Your task to perform on an android device: turn off picture-in-picture Image 0: 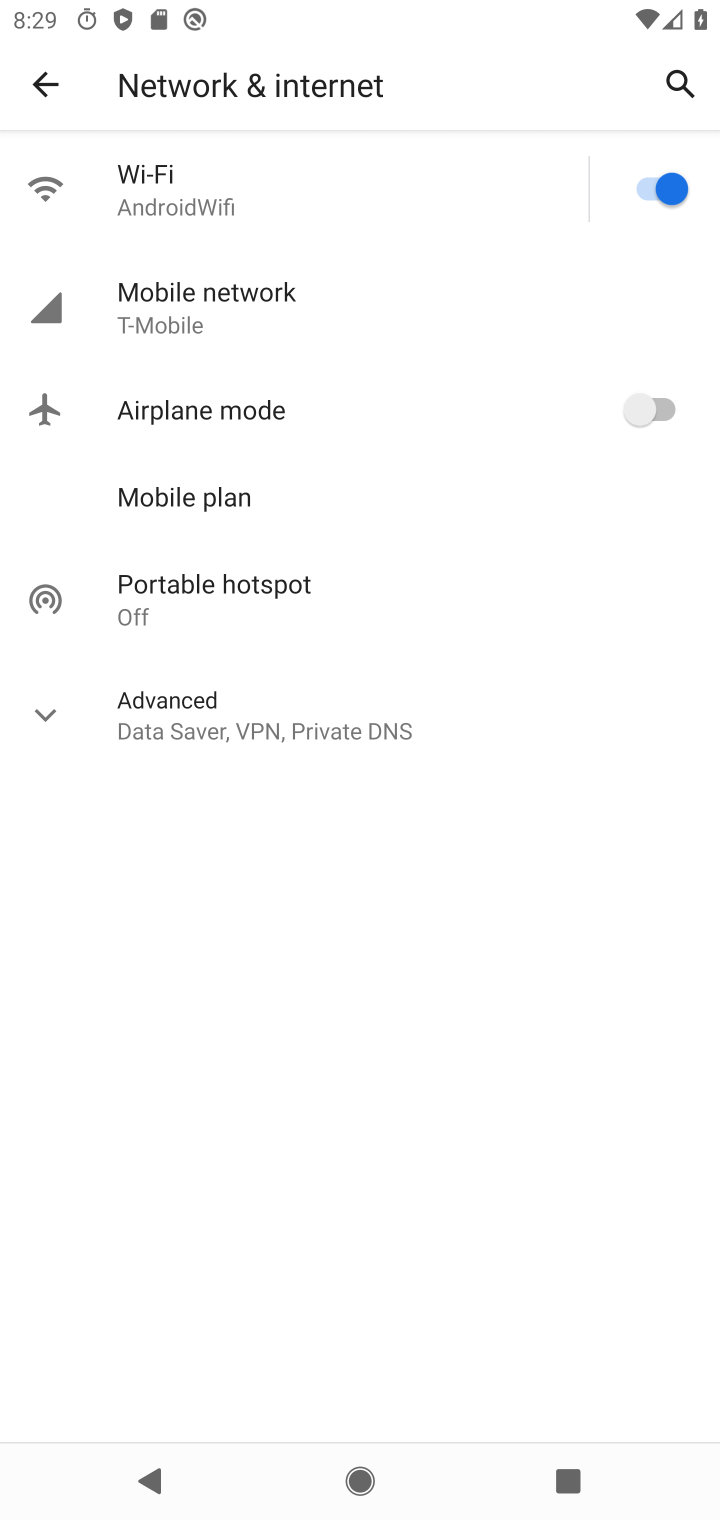
Step 0: press home button
Your task to perform on an android device: turn off picture-in-picture Image 1: 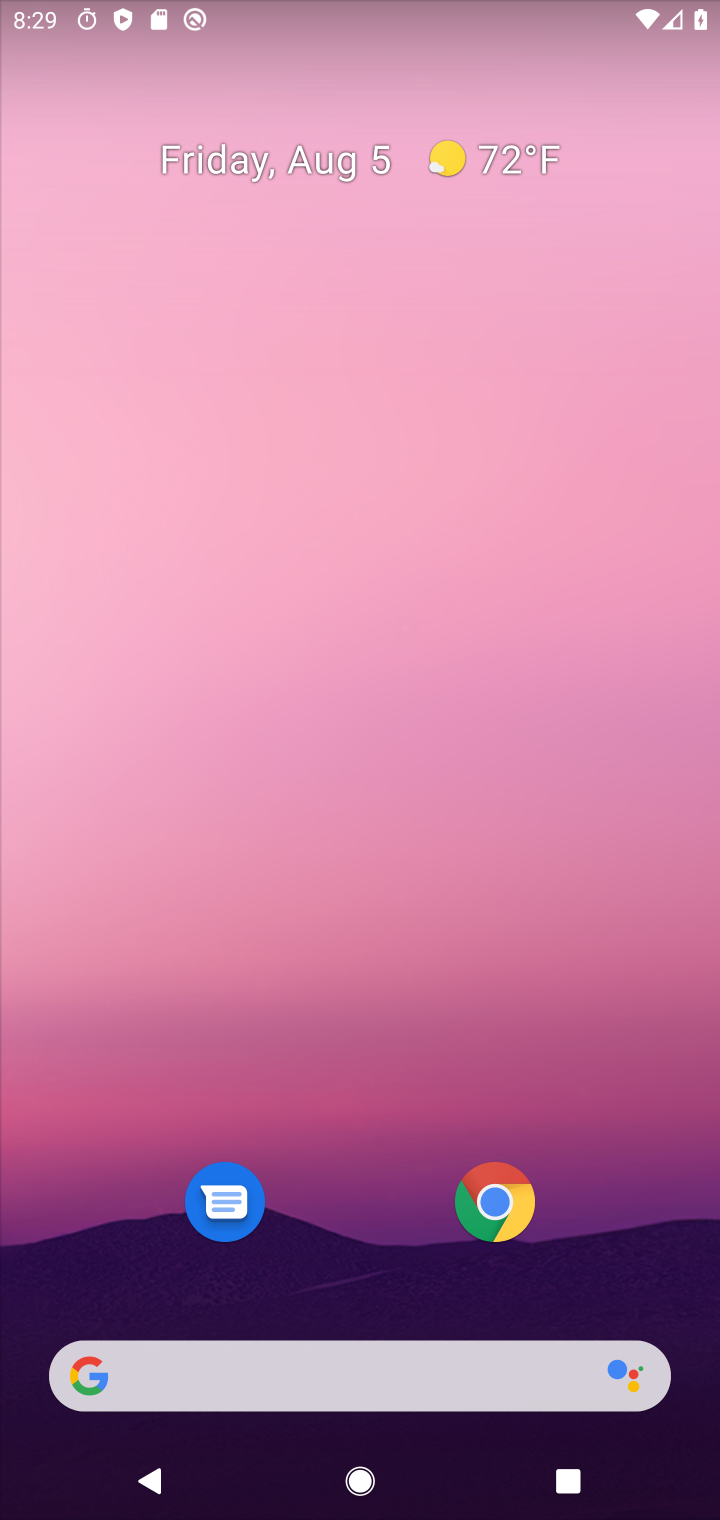
Step 1: click (509, 1206)
Your task to perform on an android device: turn off picture-in-picture Image 2: 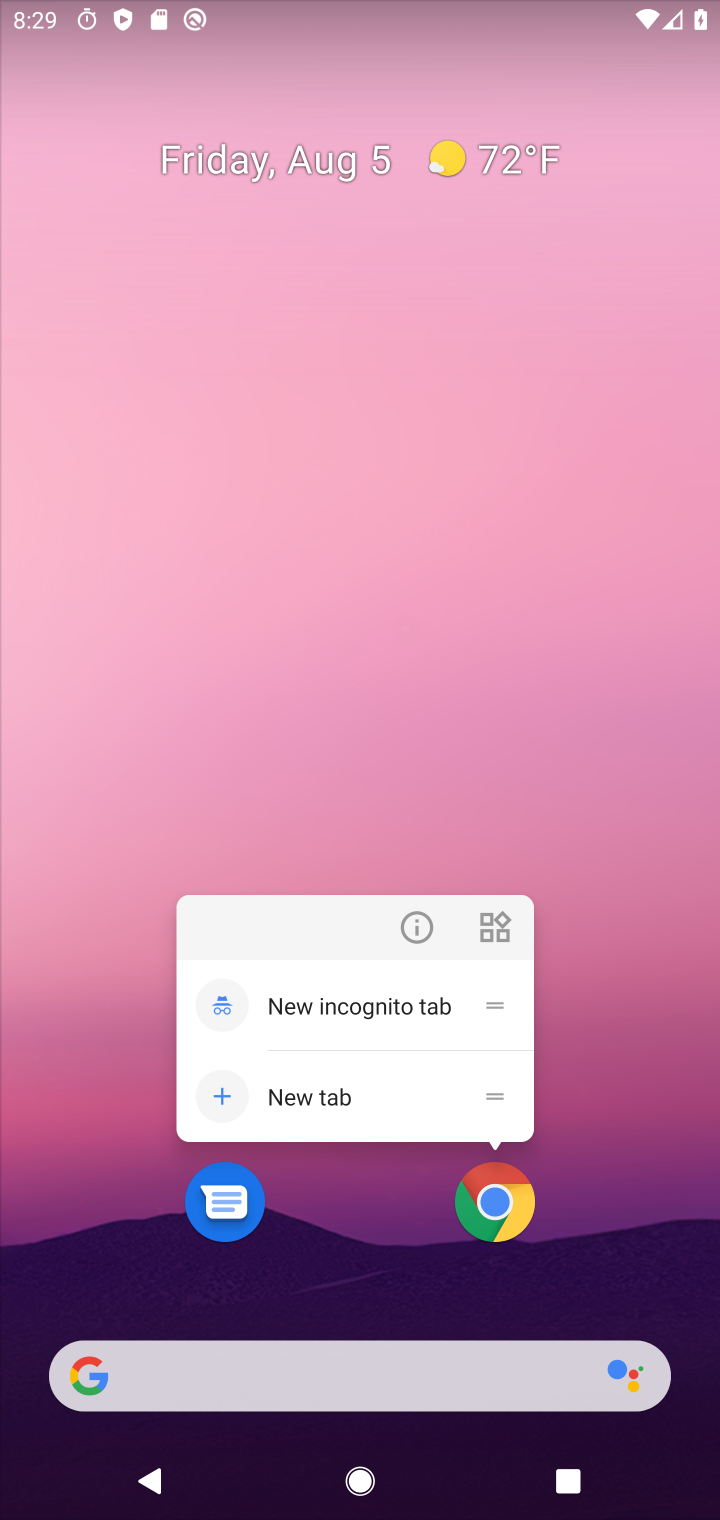
Step 2: click (413, 920)
Your task to perform on an android device: turn off picture-in-picture Image 3: 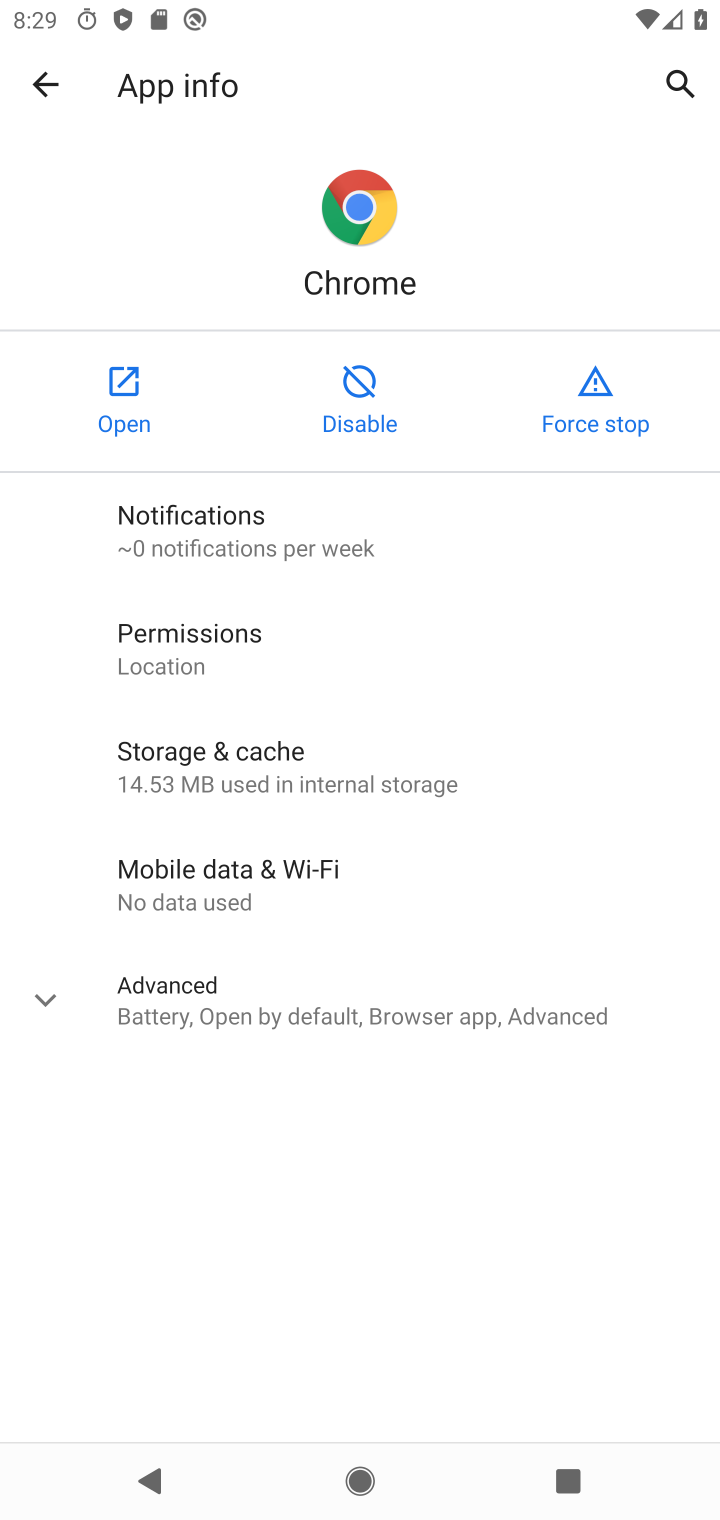
Step 3: click (249, 1009)
Your task to perform on an android device: turn off picture-in-picture Image 4: 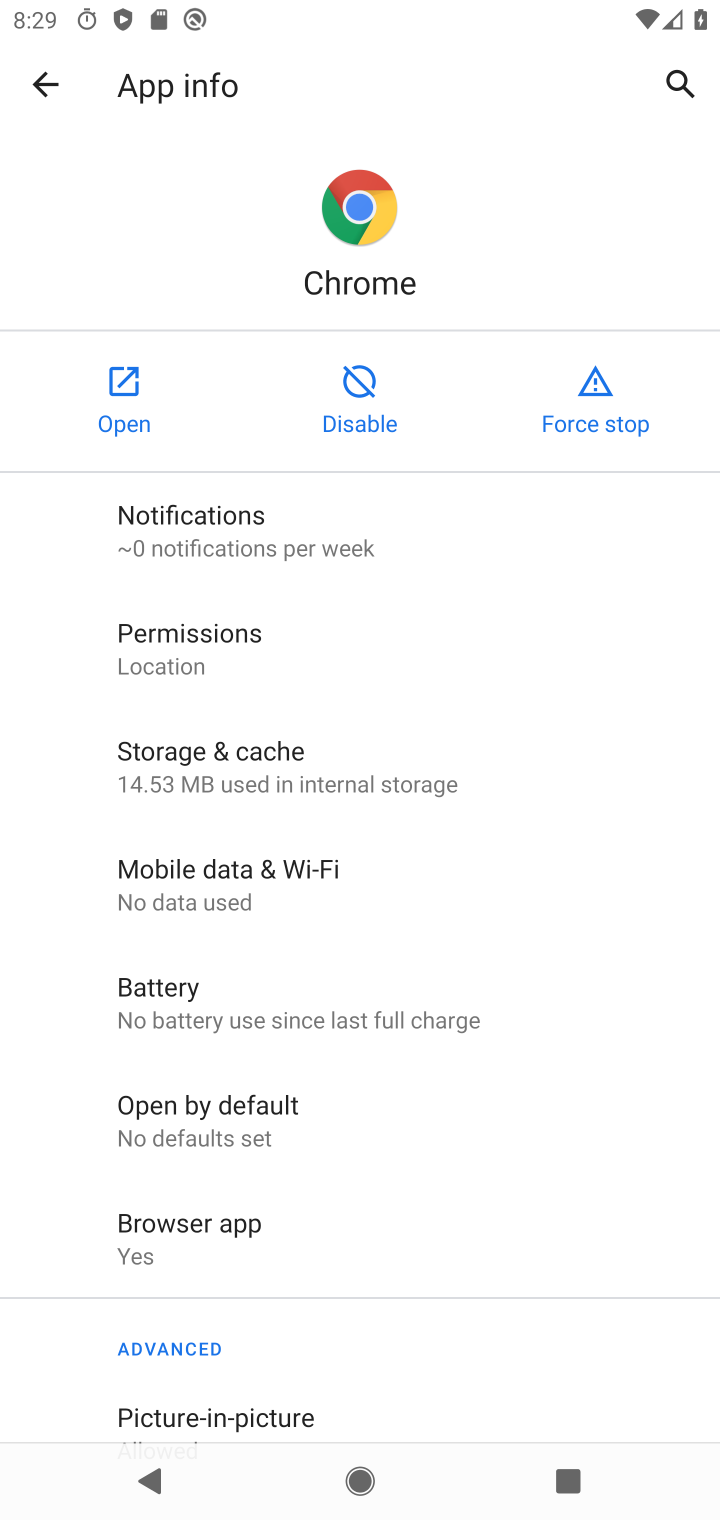
Step 4: drag from (210, 1350) to (184, 456)
Your task to perform on an android device: turn off picture-in-picture Image 5: 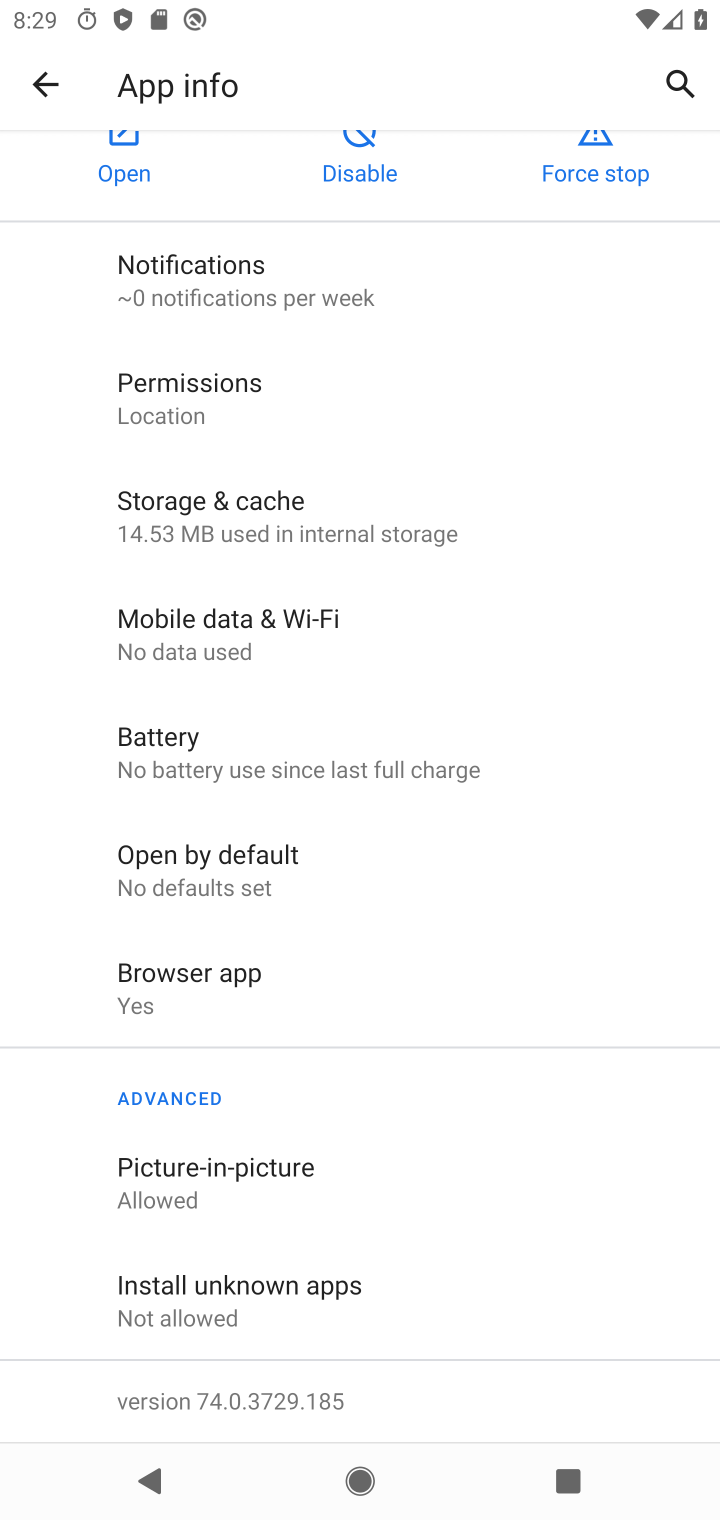
Step 5: click (241, 1166)
Your task to perform on an android device: turn off picture-in-picture Image 6: 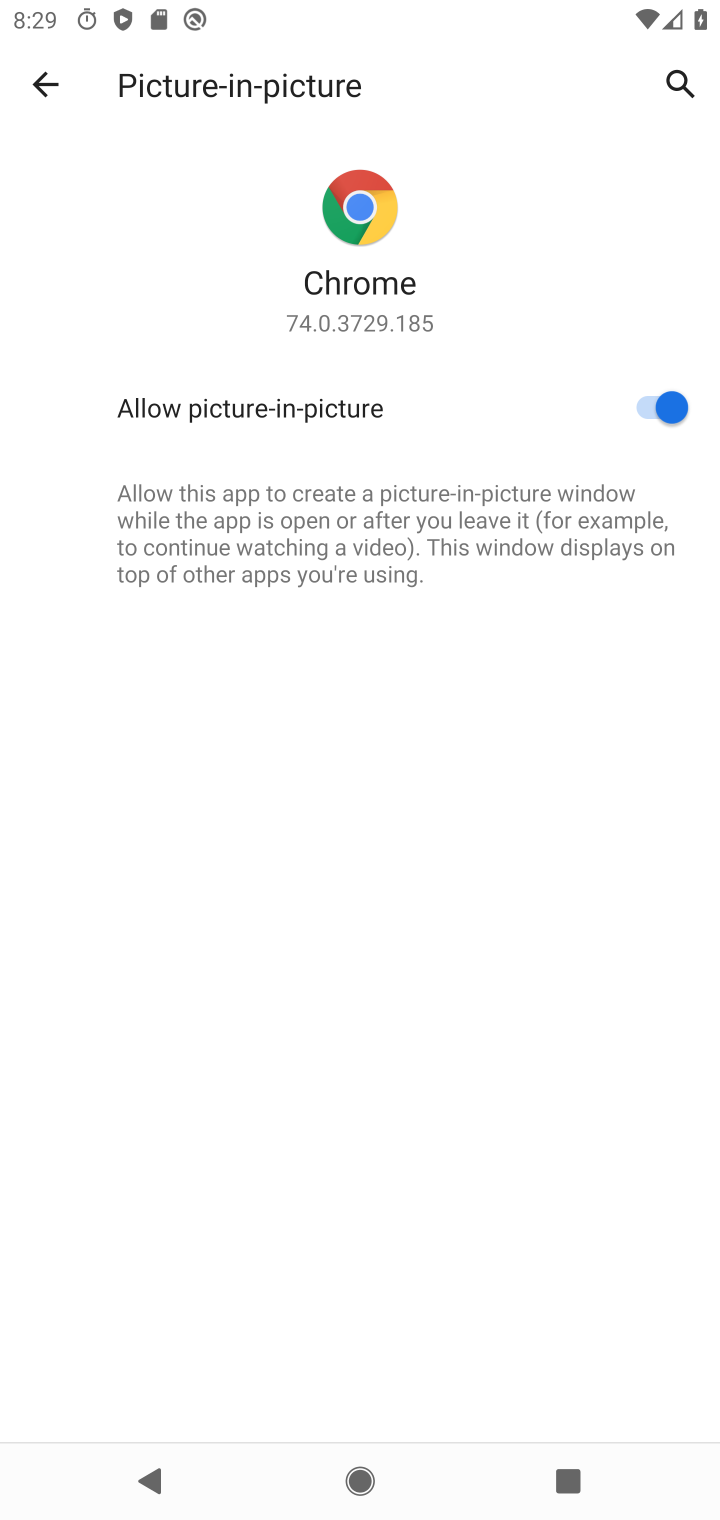
Step 6: click (676, 415)
Your task to perform on an android device: turn off picture-in-picture Image 7: 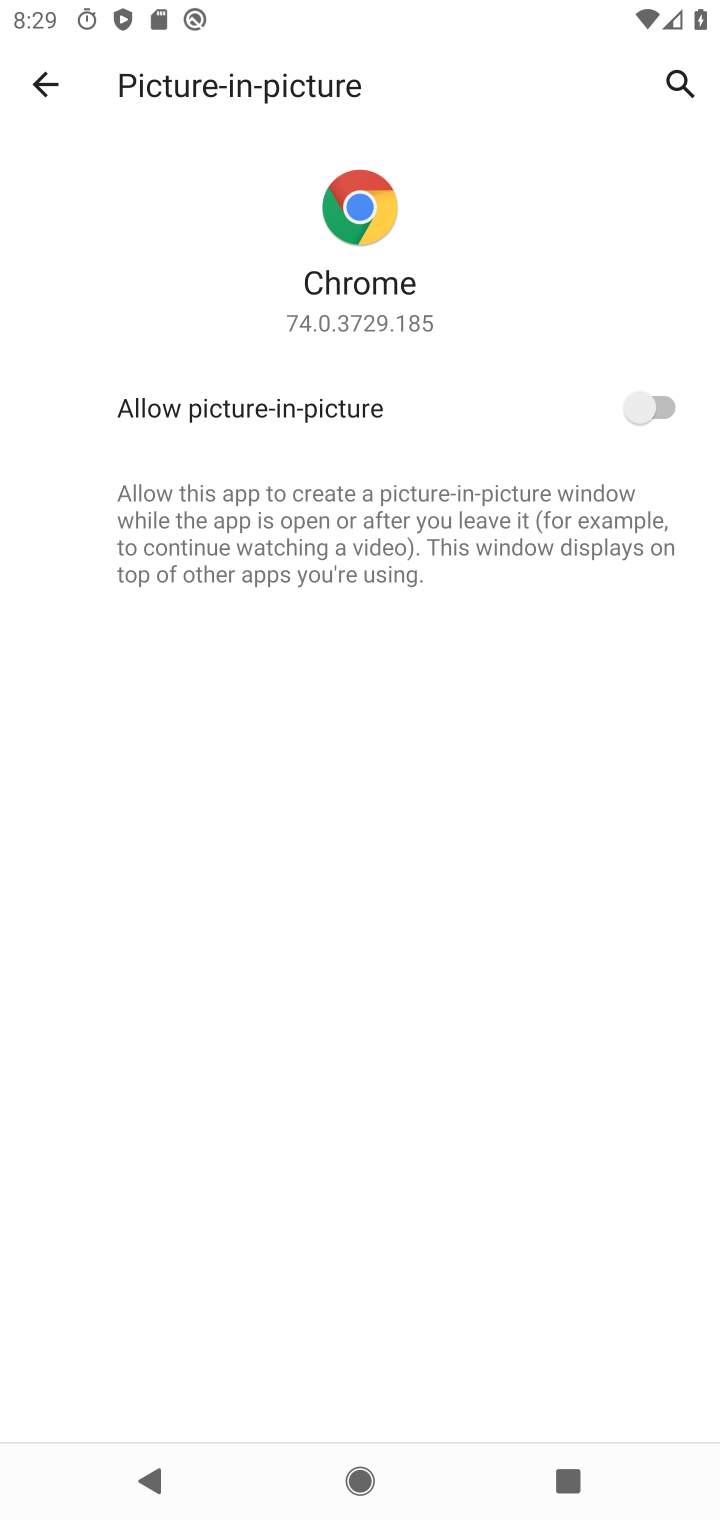
Step 7: task complete